Your task to perform on an android device: turn on javascript in the chrome app Image 0: 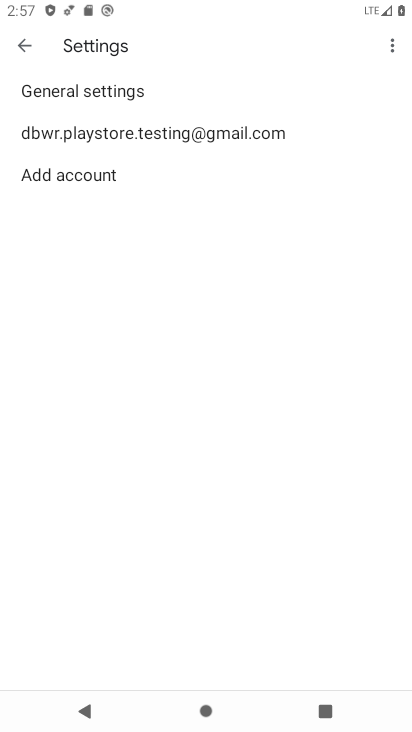
Step 0: press home button
Your task to perform on an android device: turn on javascript in the chrome app Image 1: 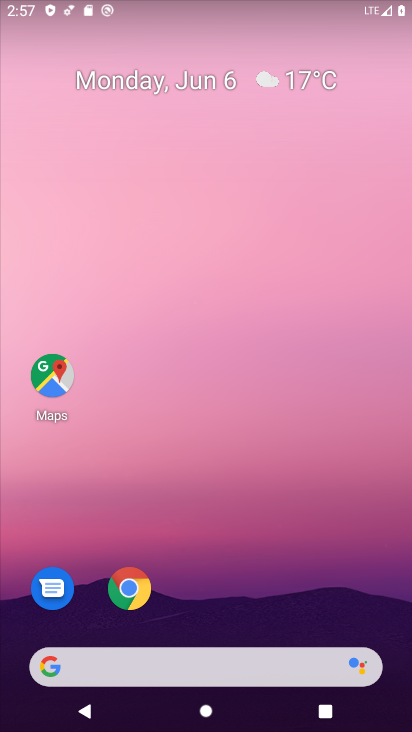
Step 1: click (136, 584)
Your task to perform on an android device: turn on javascript in the chrome app Image 2: 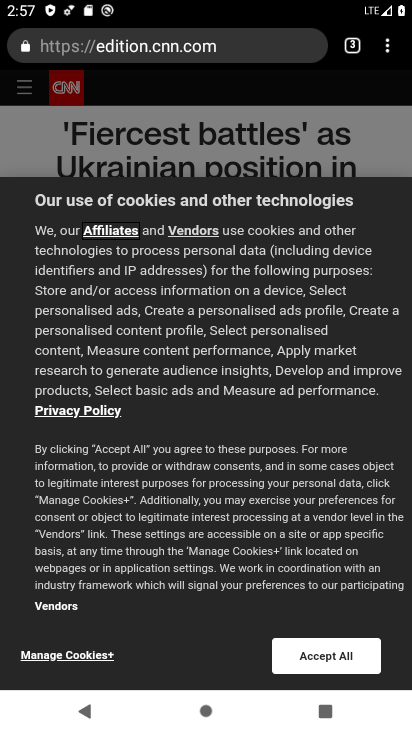
Step 2: drag from (391, 54) to (264, 503)
Your task to perform on an android device: turn on javascript in the chrome app Image 3: 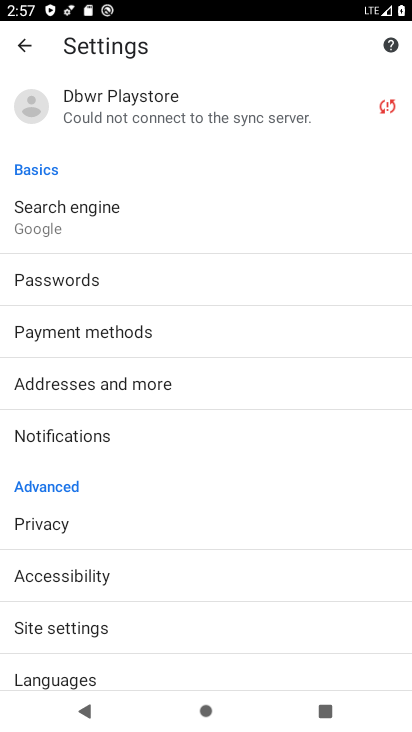
Step 3: click (110, 636)
Your task to perform on an android device: turn on javascript in the chrome app Image 4: 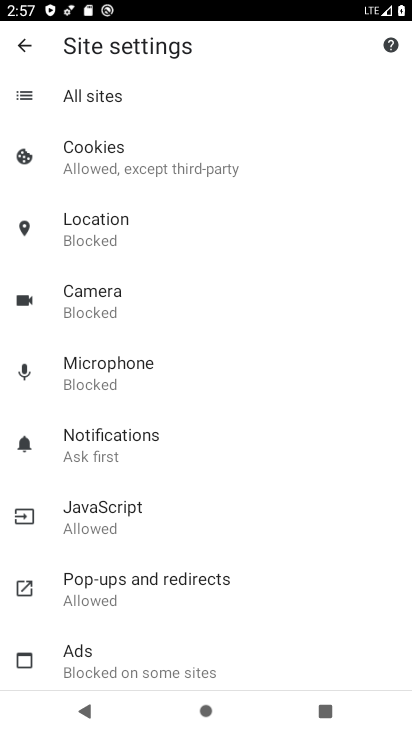
Step 4: click (129, 511)
Your task to perform on an android device: turn on javascript in the chrome app Image 5: 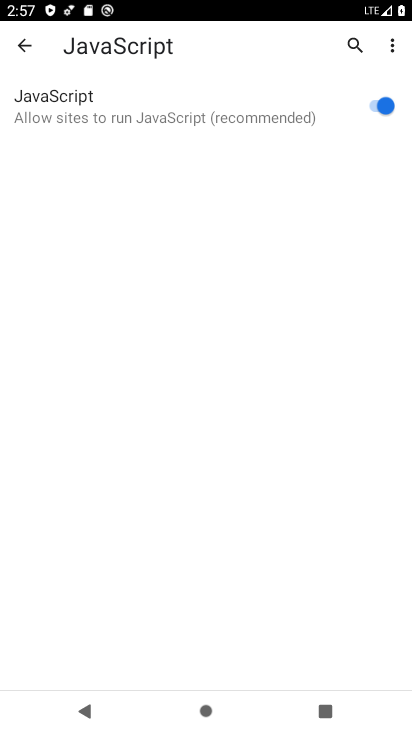
Step 5: task complete